Your task to perform on an android device: Go to settings Image 0: 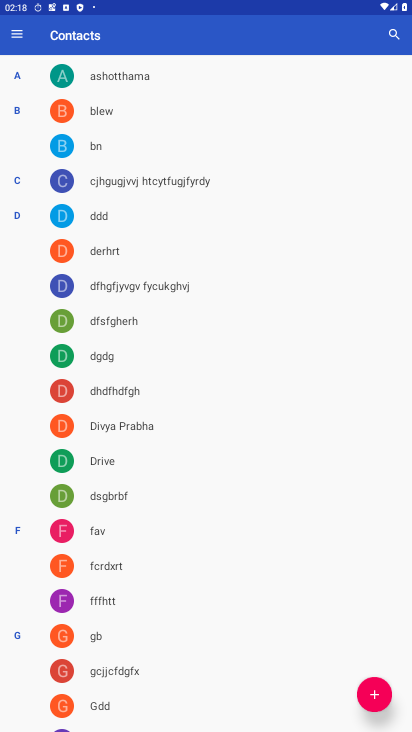
Step 0: press home button
Your task to perform on an android device: Go to settings Image 1: 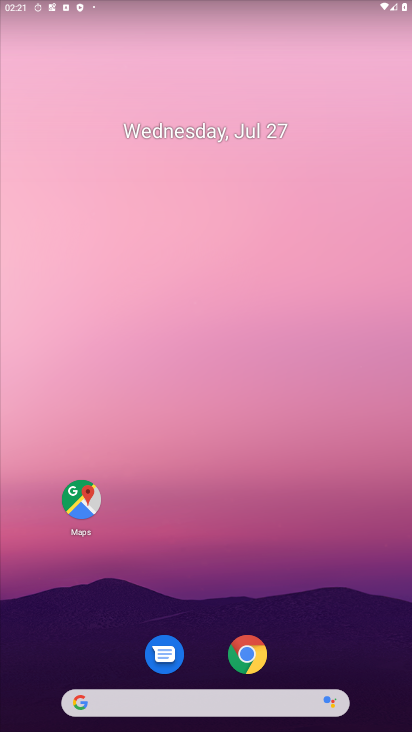
Step 1: drag from (312, 672) to (365, 112)
Your task to perform on an android device: Go to settings Image 2: 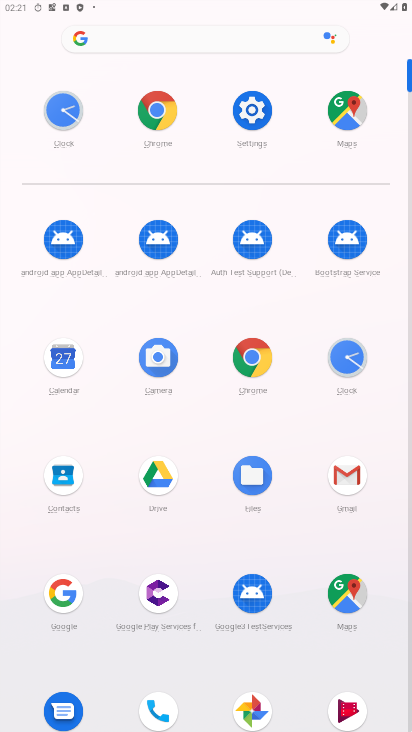
Step 2: click (258, 106)
Your task to perform on an android device: Go to settings Image 3: 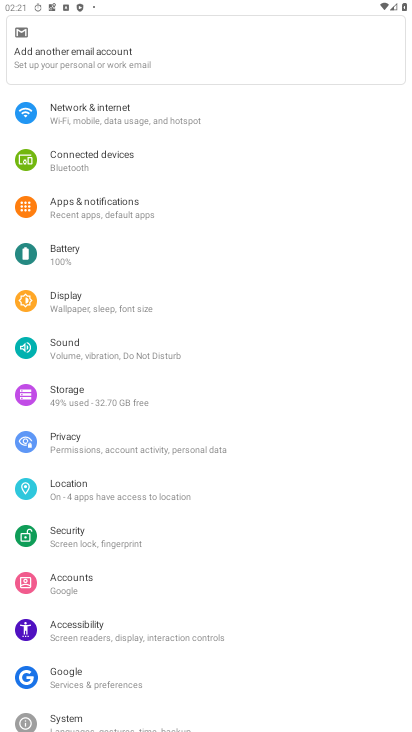
Step 3: task complete